Your task to perform on an android device: Go to ESPN.com Image 0: 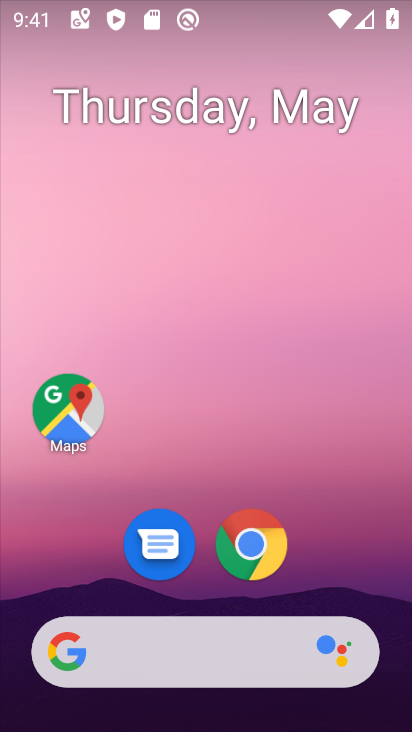
Step 0: click (252, 543)
Your task to perform on an android device: Go to ESPN.com Image 1: 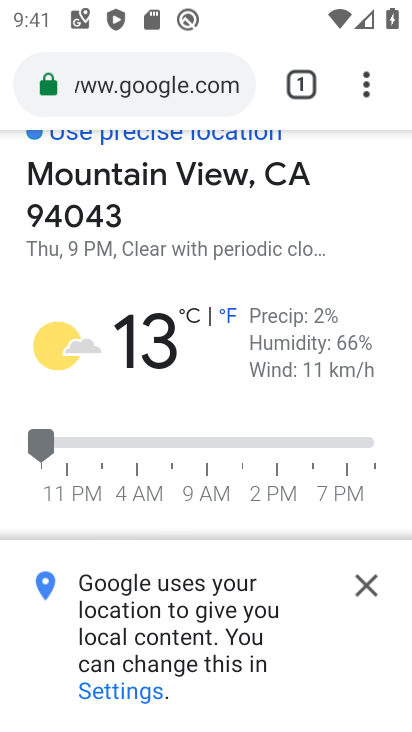
Step 1: click (112, 96)
Your task to perform on an android device: Go to ESPN.com Image 2: 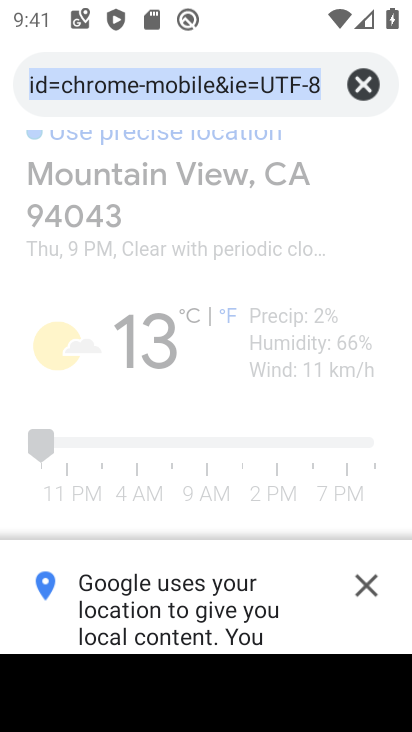
Step 2: type "ESPN.com"
Your task to perform on an android device: Go to ESPN.com Image 3: 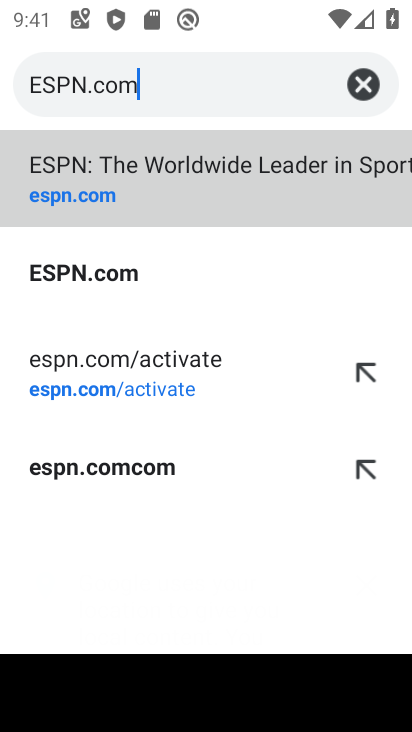
Step 3: click (133, 273)
Your task to perform on an android device: Go to ESPN.com Image 4: 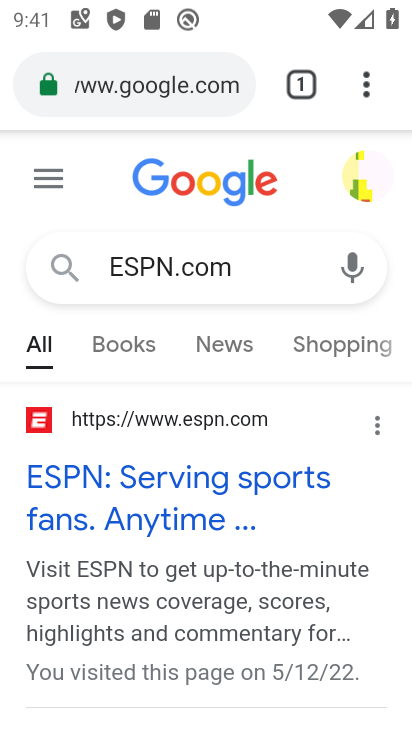
Step 4: task complete